Your task to perform on an android device: Go to Google maps Image 0: 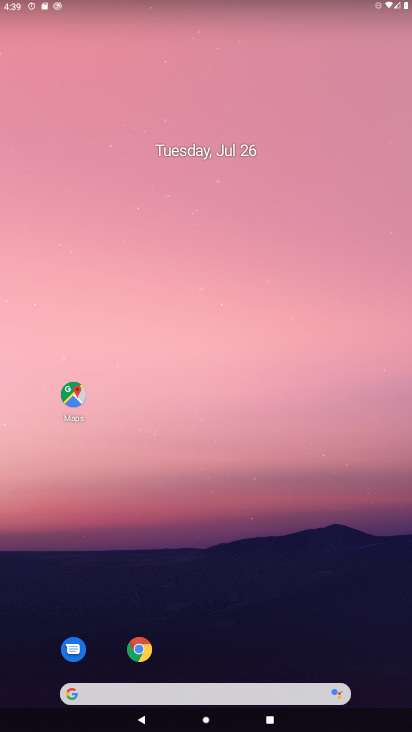
Step 0: drag from (354, 611) to (233, 7)
Your task to perform on an android device: Go to Google maps Image 1: 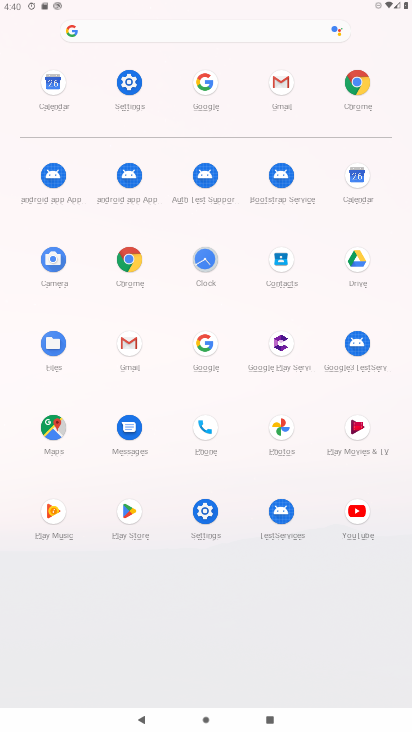
Step 1: click (63, 431)
Your task to perform on an android device: Go to Google maps Image 2: 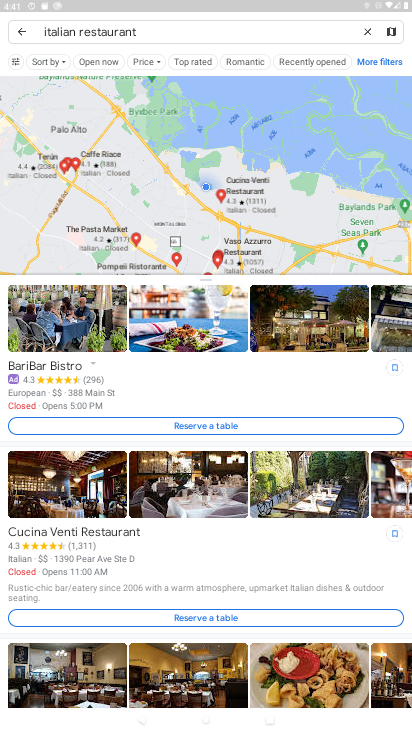
Step 2: click (365, 35)
Your task to perform on an android device: Go to Google maps Image 3: 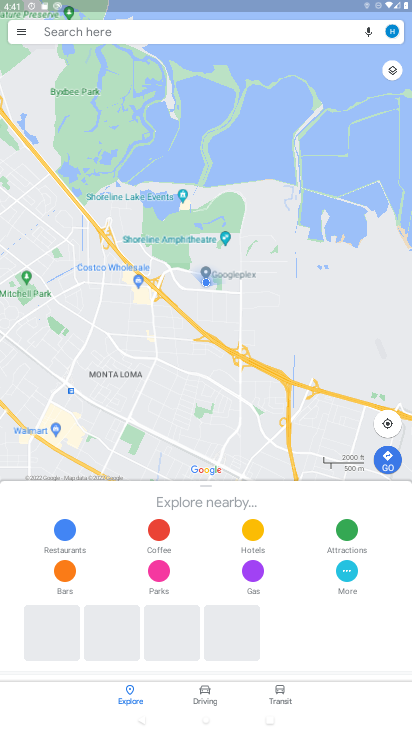
Step 3: task complete